Your task to perform on an android device: Go to wifi settings Image 0: 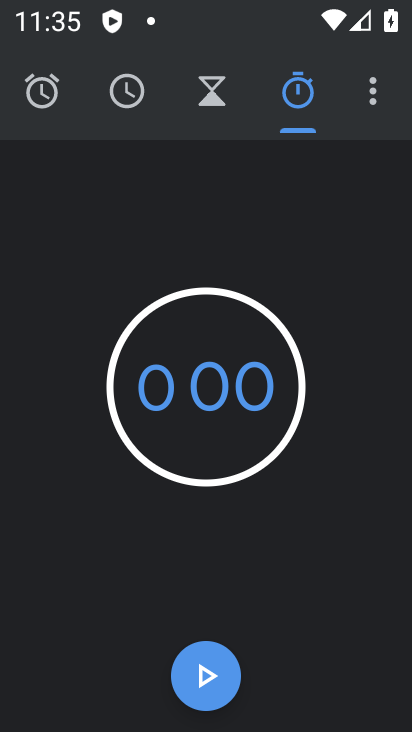
Step 0: drag from (334, 531) to (335, 181)
Your task to perform on an android device: Go to wifi settings Image 1: 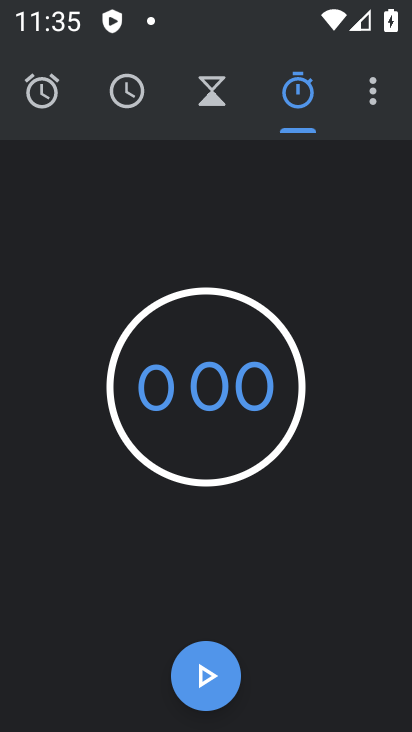
Step 1: press home button
Your task to perform on an android device: Go to wifi settings Image 2: 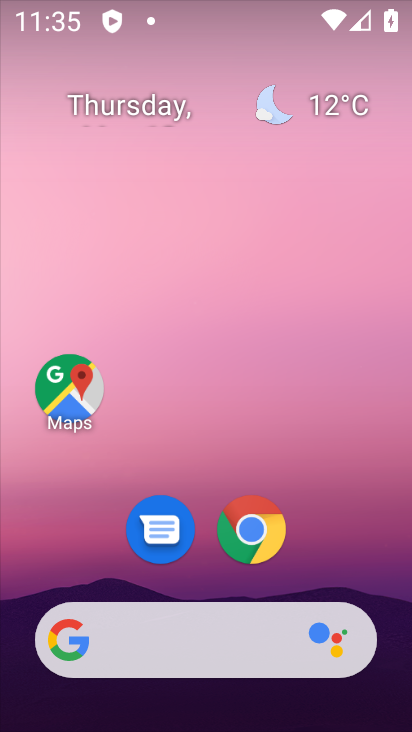
Step 2: drag from (332, 555) to (324, 216)
Your task to perform on an android device: Go to wifi settings Image 3: 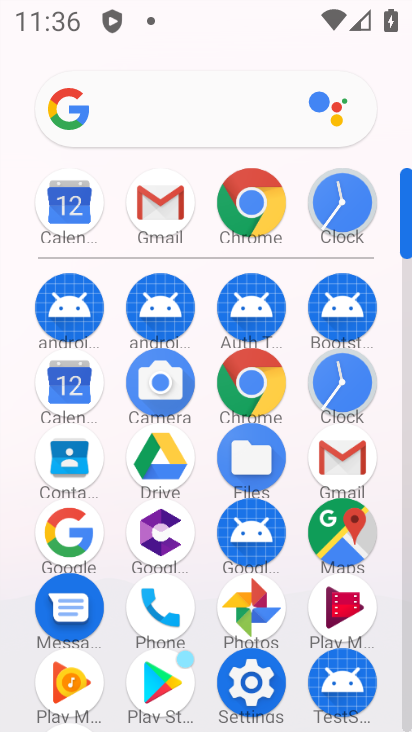
Step 3: click (244, 670)
Your task to perform on an android device: Go to wifi settings Image 4: 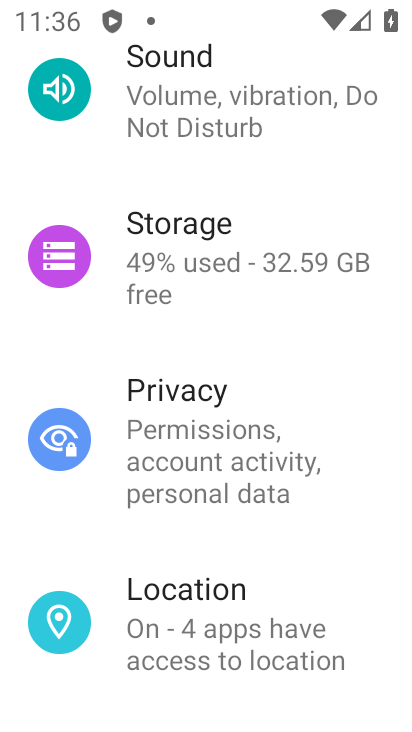
Step 4: drag from (193, 170) to (178, 666)
Your task to perform on an android device: Go to wifi settings Image 5: 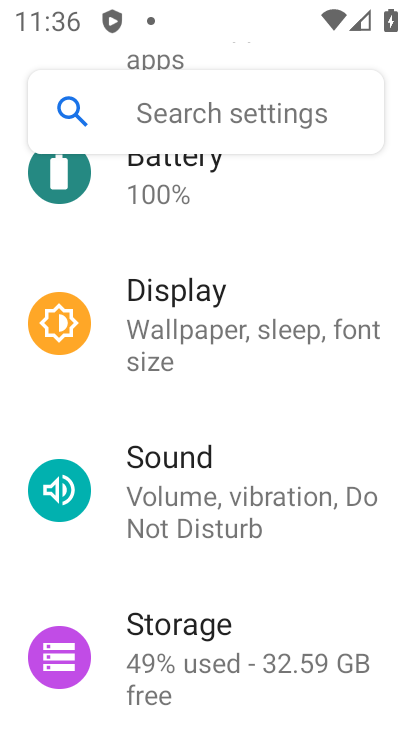
Step 5: drag from (172, 188) to (200, 700)
Your task to perform on an android device: Go to wifi settings Image 6: 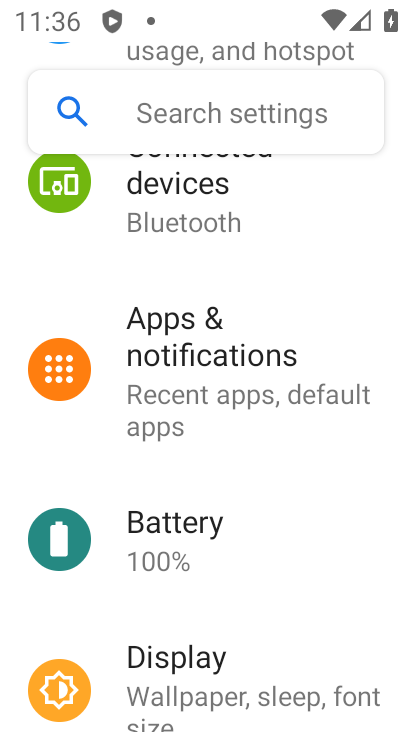
Step 6: drag from (170, 306) to (194, 729)
Your task to perform on an android device: Go to wifi settings Image 7: 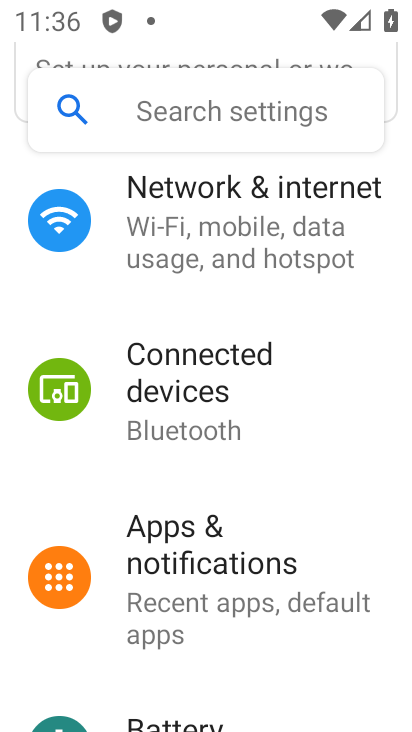
Step 7: click (187, 231)
Your task to perform on an android device: Go to wifi settings Image 8: 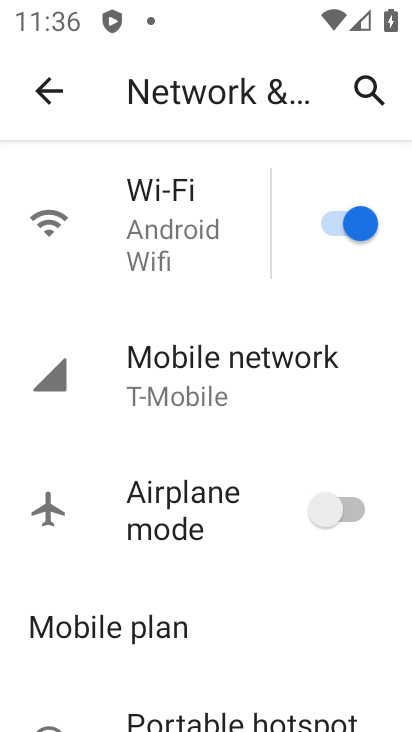
Step 8: task complete